Your task to perform on an android device: Show me popular videos on Youtube Image 0: 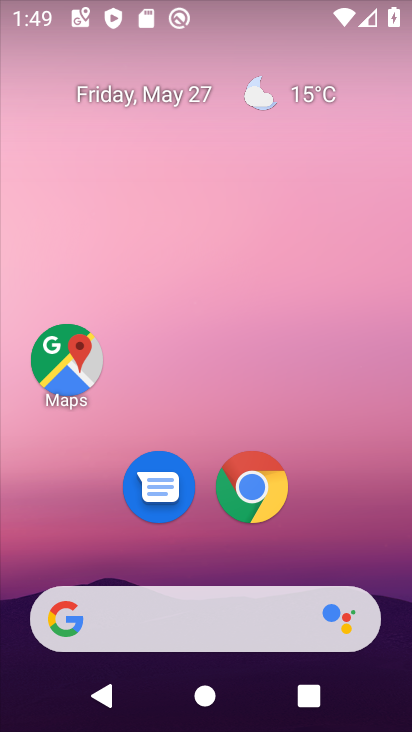
Step 0: drag from (361, 528) to (319, 170)
Your task to perform on an android device: Show me popular videos on Youtube Image 1: 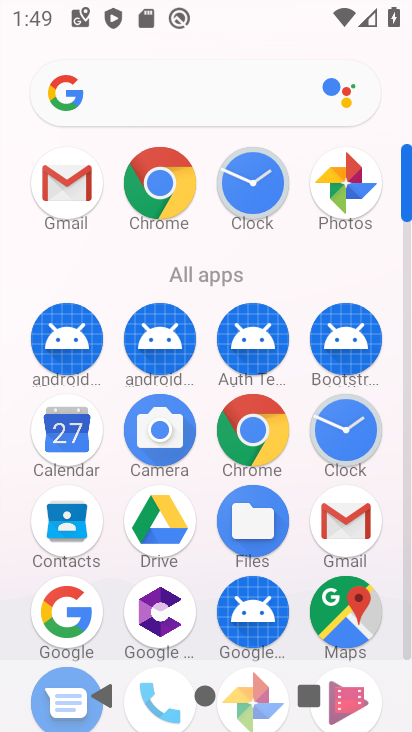
Step 1: drag from (302, 557) to (302, 181)
Your task to perform on an android device: Show me popular videos on Youtube Image 2: 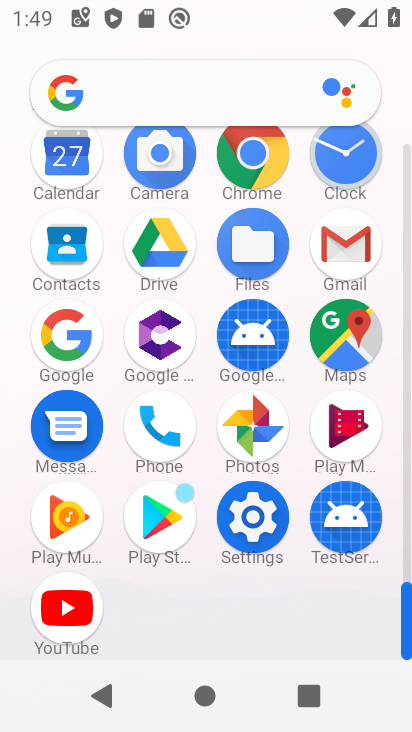
Step 2: click (84, 610)
Your task to perform on an android device: Show me popular videos on Youtube Image 3: 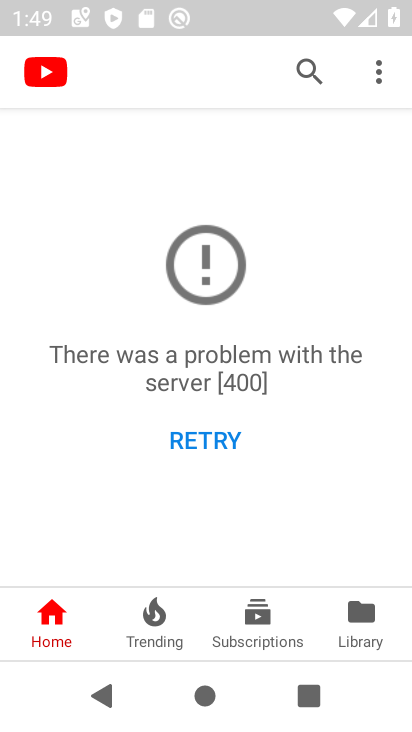
Step 3: press home button
Your task to perform on an android device: Show me popular videos on Youtube Image 4: 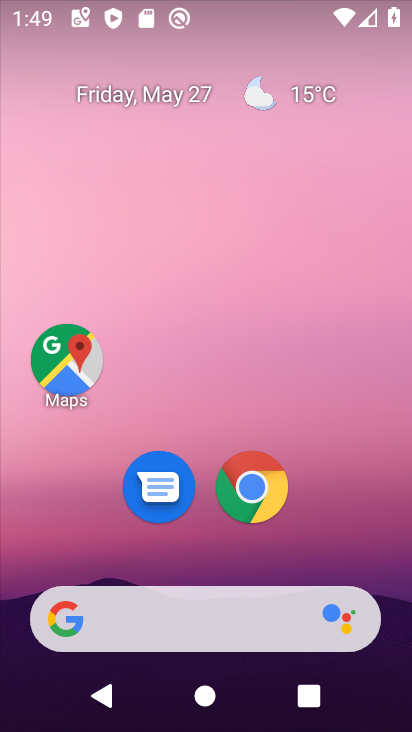
Step 4: drag from (297, 467) to (296, 13)
Your task to perform on an android device: Show me popular videos on Youtube Image 5: 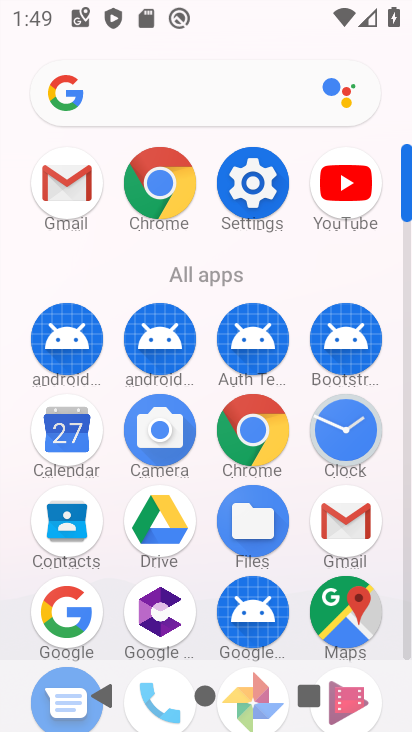
Step 5: click (362, 192)
Your task to perform on an android device: Show me popular videos on Youtube Image 6: 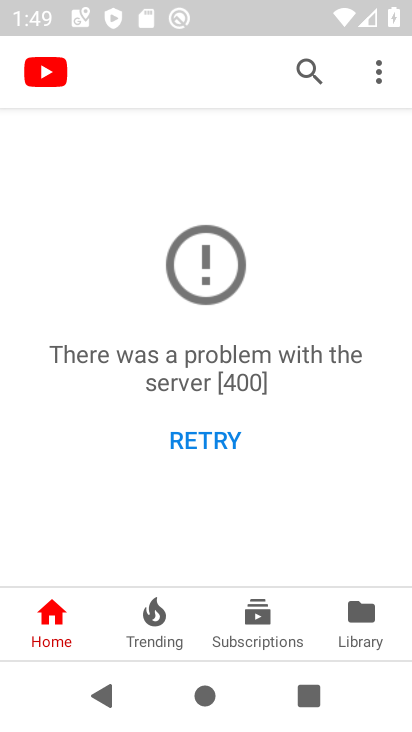
Step 6: click (202, 438)
Your task to perform on an android device: Show me popular videos on Youtube Image 7: 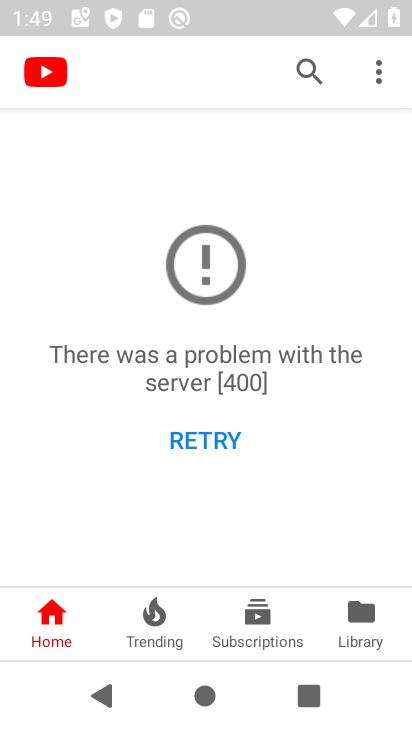
Step 7: task complete